Your task to perform on an android device: open a new tab in the chrome app Image 0: 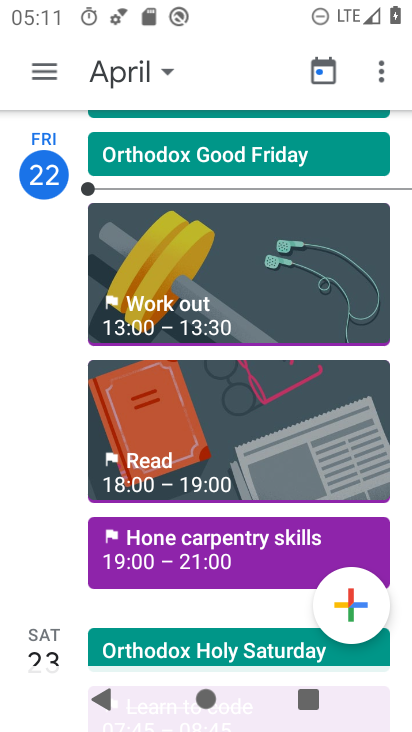
Step 0: press back button
Your task to perform on an android device: open a new tab in the chrome app Image 1: 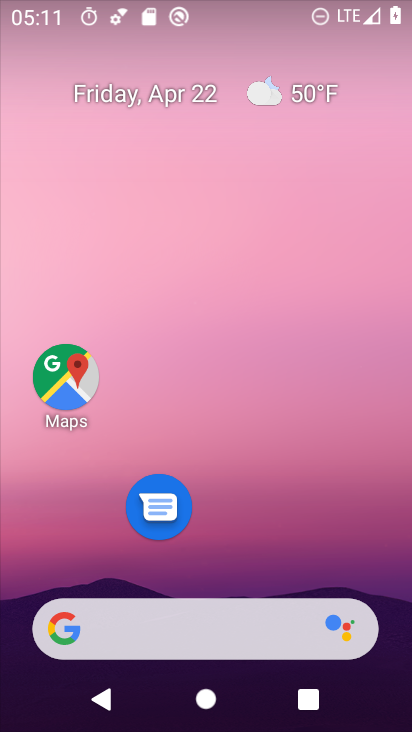
Step 1: drag from (249, 579) to (286, 81)
Your task to perform on an android device: open a new tab in the chrome app Image 2: 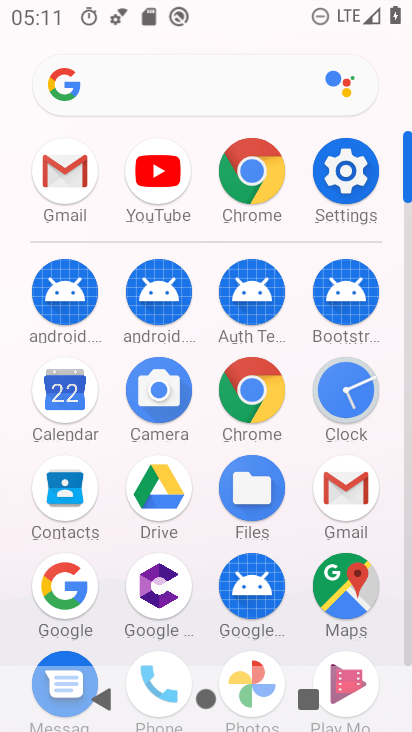
Step 2: click (259, 162)
Your task to perform on an android device: open a new tab in the chrome app Image 3: 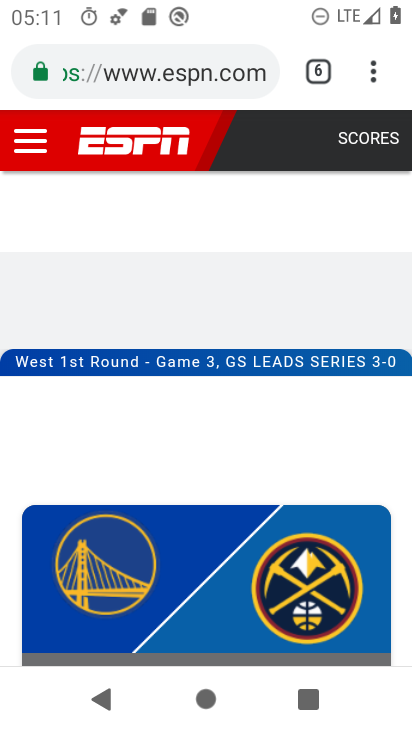
Step 3: click (323, 70)
Your task to perform on an android device: open a new tab in the chrome app Image 4: 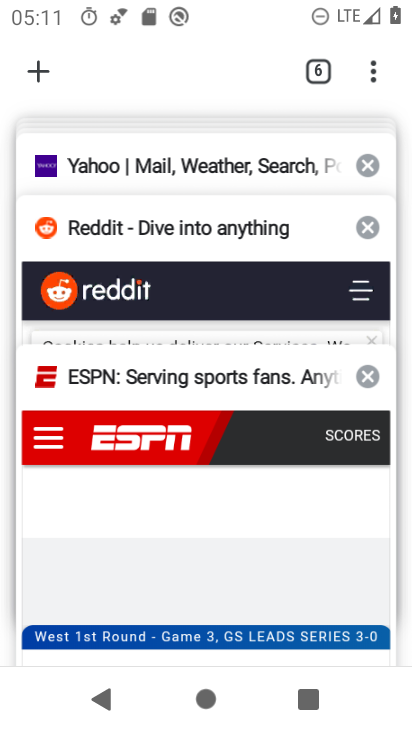
Step 4: click (41, 64)
Your task to perform on an android device: open a new tab in the chrome app Image 5: 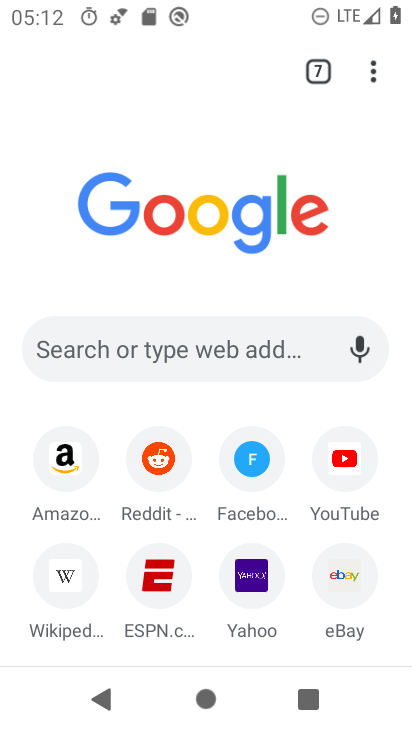
Step 5: task complete